Your task to perform on an android device: Search for pizza restaurants on Maps Image 0: 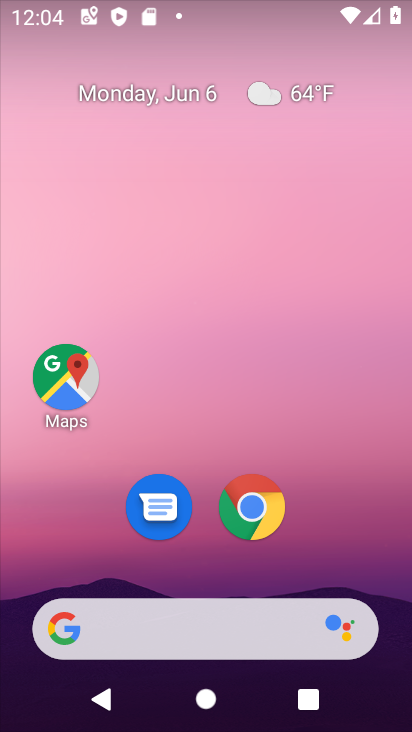
Step 0: click (63, 369)
Your task to perform on an android device: Search for pizza restaurants on Maps Image 1: 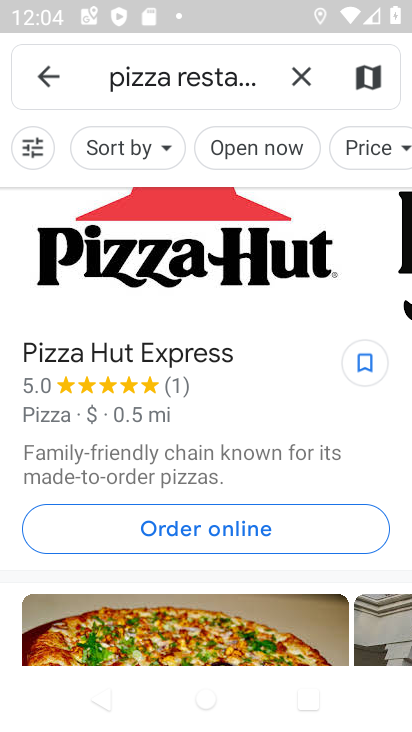
Step 1: task complete